Your task to perform on an android device: open a bookmark in the chrome app Image 0: 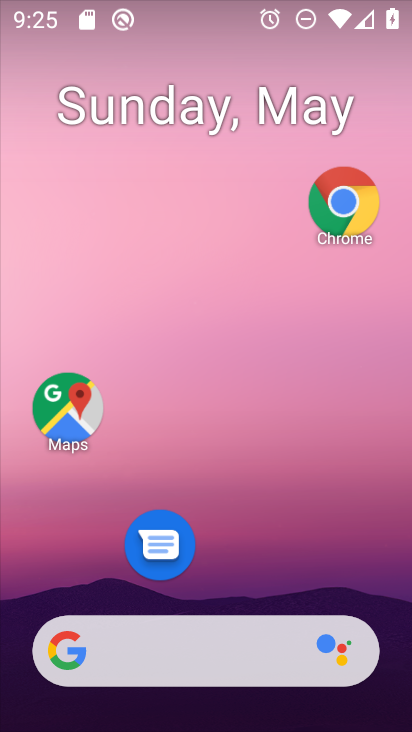
Step 0: click (352, 214)
Your task to perform on an android device: open a bookmark in the chrome app Image 1: 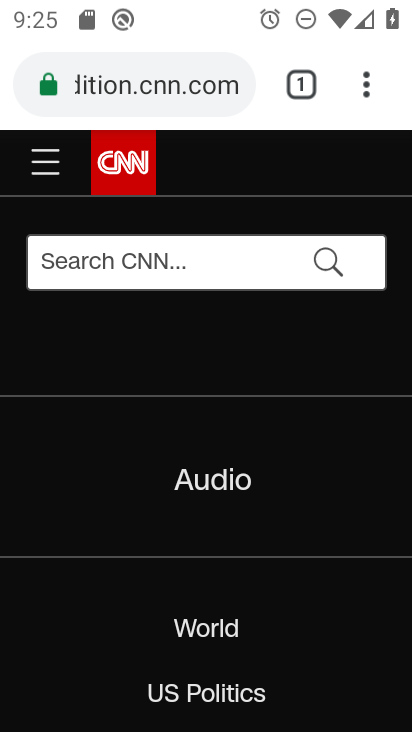
Step 1: click (372, 78)
Your task to perform on an android device: open a bookmark in the chrome app Image 2: 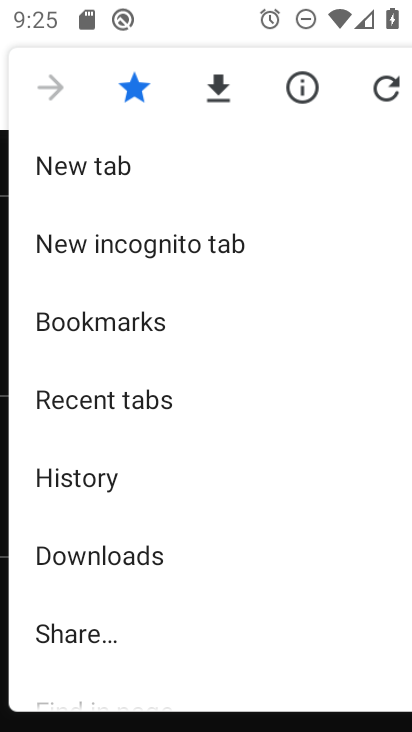
Step 2: click (97, 335)
Your task to perform on an android device: open a bookmark in the chrome app Image 3: 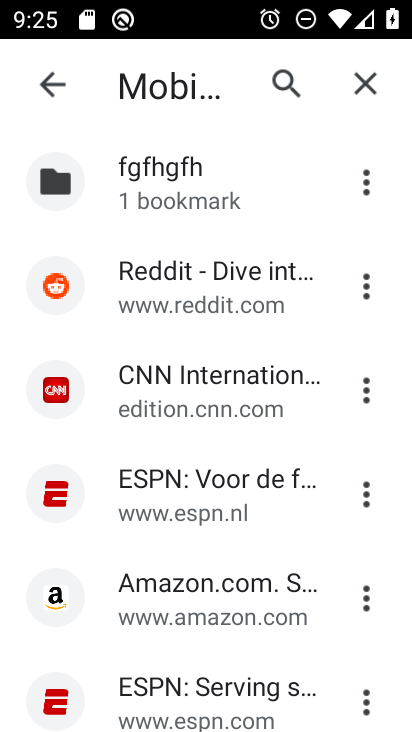
Step 3: click (97, 335)
Your task to perform on an android device: open a bookmark in the chrome app Image 4: 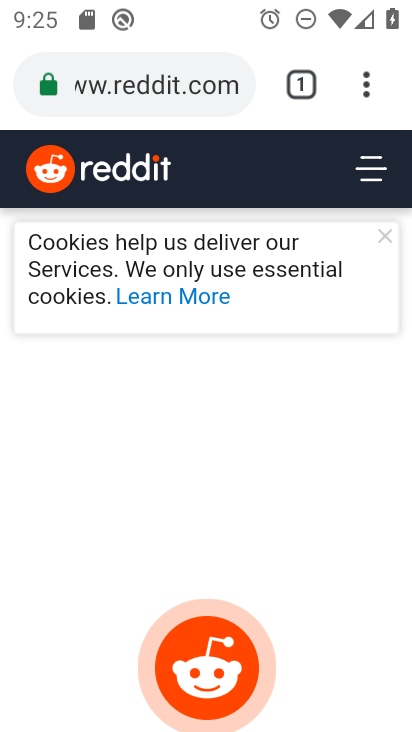
Step 4: task complete